Your task to perform on an android device: View the shopping cart on target. Search for "bose soundlink" on target, select the first entry, add it to the cart, then select checkout. Image 0: 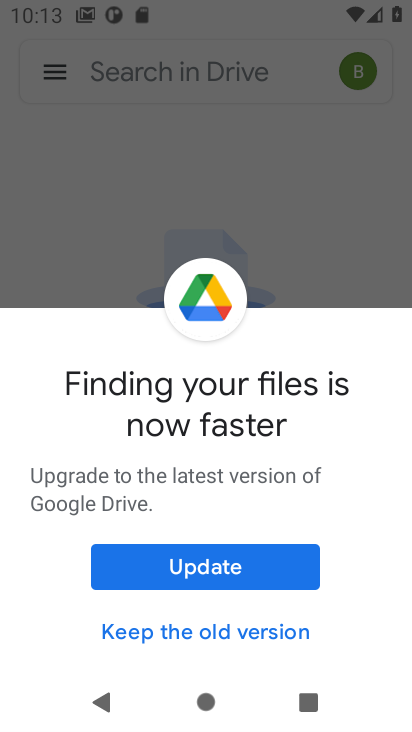
Step 0: press home button
Your task to perform on an android device: View the shopping cart on target. Search for "bose soundlink" on target, select the first entry, add it to the cart, then select checkout. Image 1: 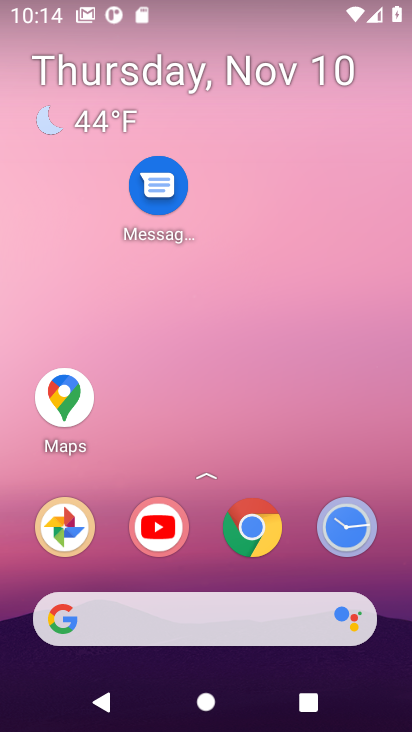
Step 1: drag from (268, 576) to (160, 67)
Your task to perform on an android device: View the shopping cart on target. Search for "bose soundlink" on target, select the first entry, add it to the cart, then select checkout. Image 2: 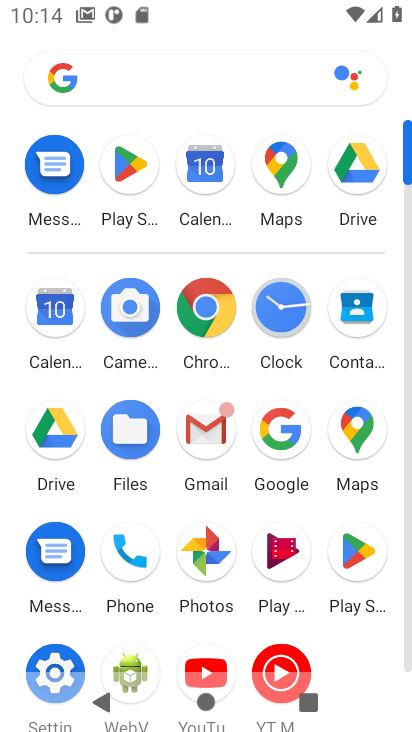
Step 2: click (215, 299)
Your task to perform on an android device: View the shopping cart on target. Search for "bose soundlink" on target, select the first entry, add it to the cart, then select checkout. Image 3: 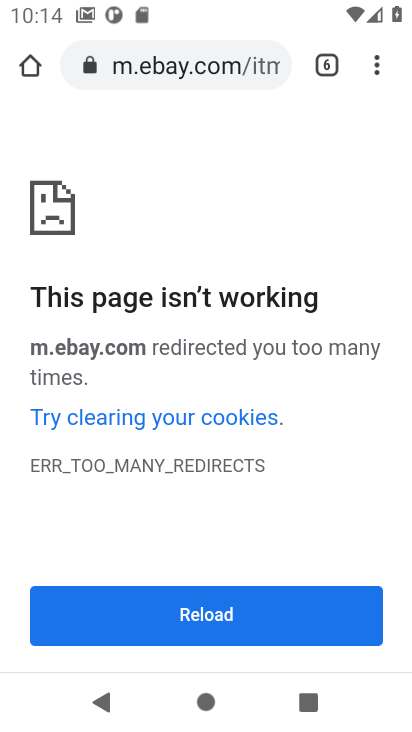
Step 3: click (230, 70)
Your task to perform on an android device: View the shopping cart on target. Search for "bose soundlink" on target, select the first entry, add it to the cart, then select checkout. Image 4: 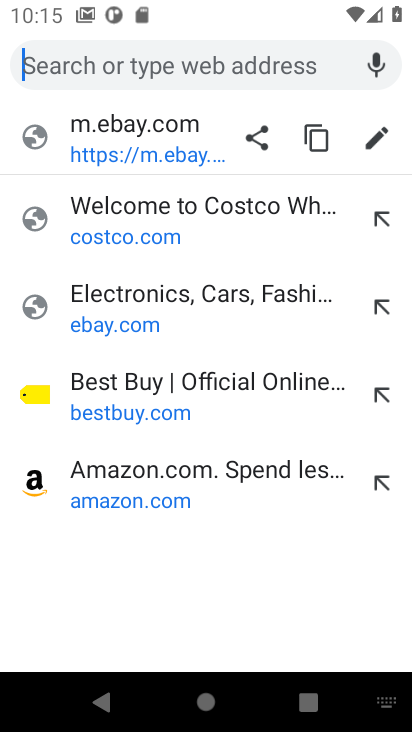
Step 4: type "target"
Your task to perform on an android device: View the shopping cart on target. Search for "bose soundlink" on target, select the first entry, add it to the cart, then select checkout. Image 5: 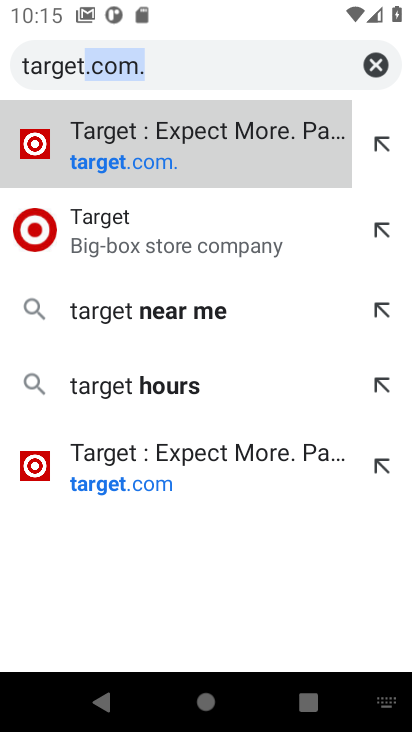
Step 5: press enter
Your task to perform on an android device: View the shopping cart on target. Search for "bose soundlink" on target, select the first entry, add it to the cart, then select checkout. Image 6: 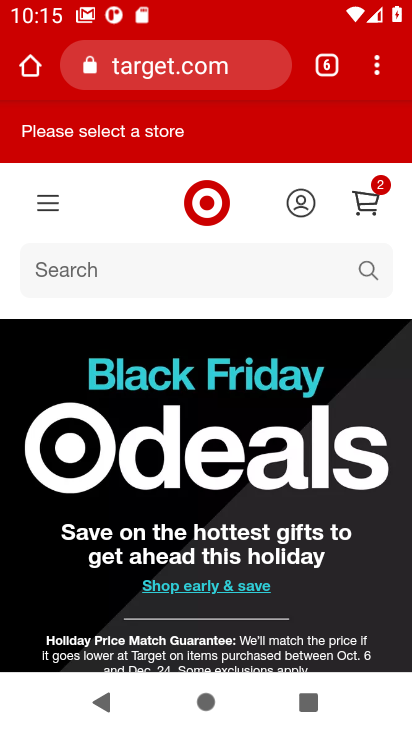
Step 6: click (184, 266)
Your task to perform on an android device: View the shopping cart on target. Search for "bose soundlink" on target, select the first entry, add it to the cart, then select checkout. Image 7: 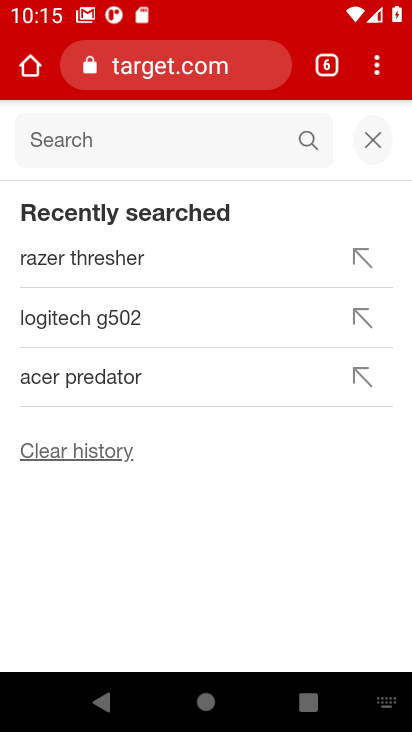
Step 7: type "bose soundlink"
Your task to perform on an android device: View the shopping cart on target. Search for "bose soundlink" on target, select the first entry, add it to the cart, then select checkout. Image 8: 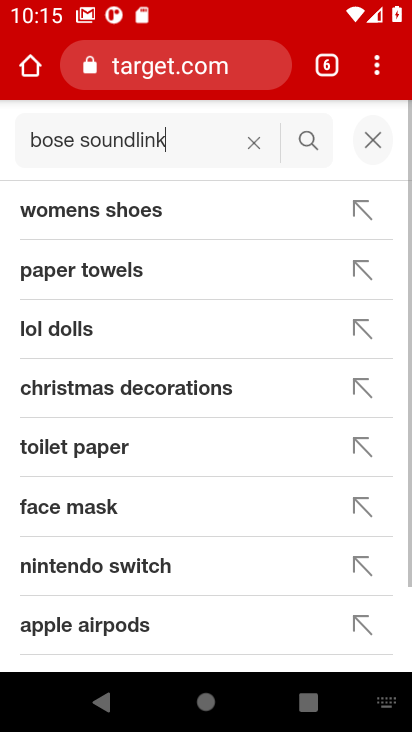
Step 8: press enter
Your task to perform on an android device: View the shopping cart on target. Search for "bose soundlink" on target, select the first entry, add it to the cart, then select checkout. Image 9: 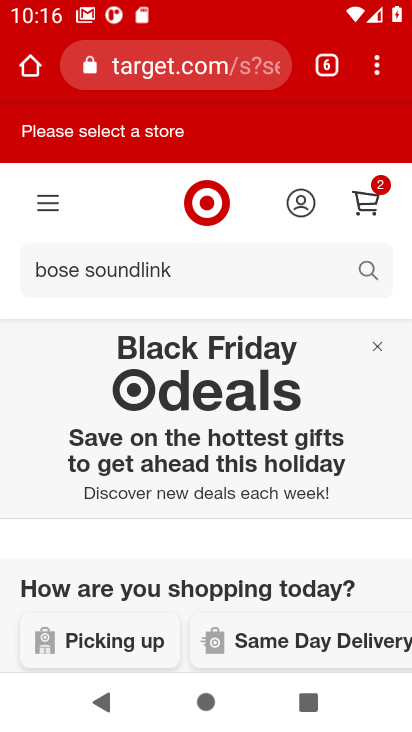
Step 9: drag from (150, 540) to (181, 260)
Your task to perform on an android device: View the shopping cart on target. Search for "bose soundlink" on target, select the first entry, add it to the cart, then select checkout. Image 10: 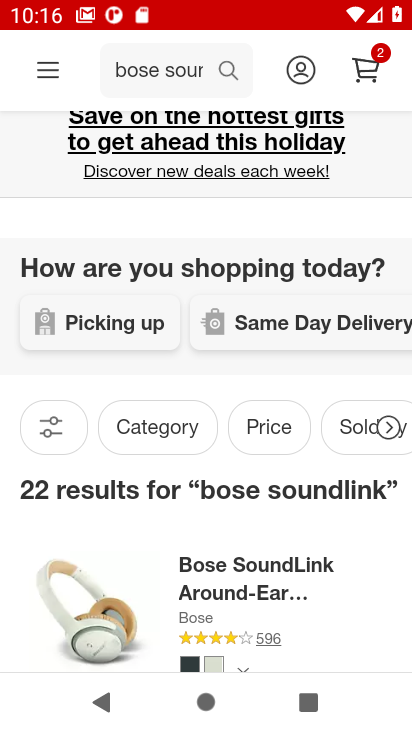
Step 10: click (278, 566)
Your task to perform on an android device: View the shopping cart on target. Search for "bose soundlink" on target, select the first entry, add it to the cart, then select checkout. Image 11: 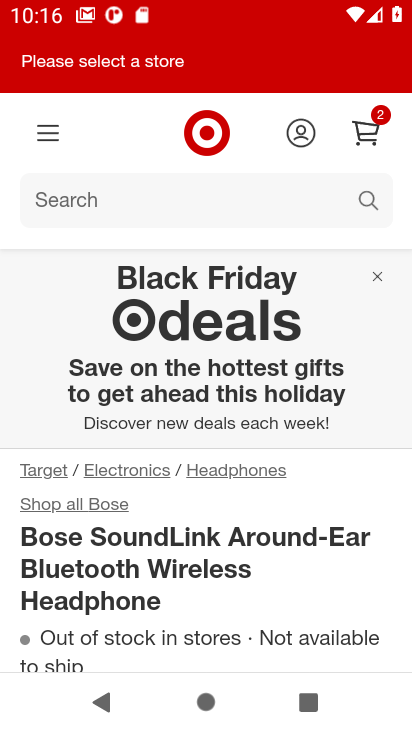
Step 11: drag from (258, 577) to (247, 263)
Your task to perform on an android device: View the shopping cart on target. Search for "bose soundlink" on target, select the first entry, add it to the cart, then select checkout. Image 12: 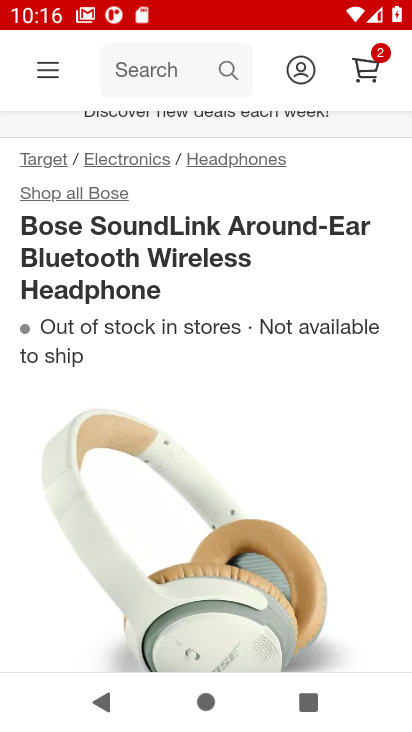
Step 12: click (370, 59)
Your task to perform on an android device: View the shopping cart on target. Search for "bose soundlink" on target, select the first entry, add it to the cart, then select checkout. Image 13: 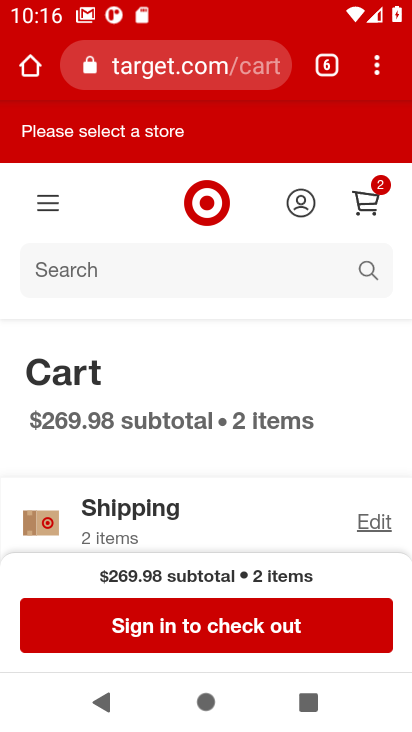
Step 13: click (254, 618)
Your task to perform on an android device: View the shopping cart on target. Search for "bose soundlink" on target, select the first entry, add it to the cart, then select checkout. Image 14: 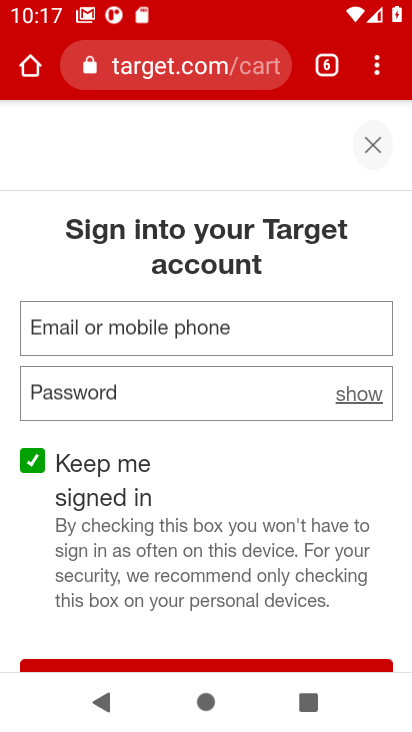
Step 14: task complete